Your task to perform on an android device: turn off wifi Image 0: 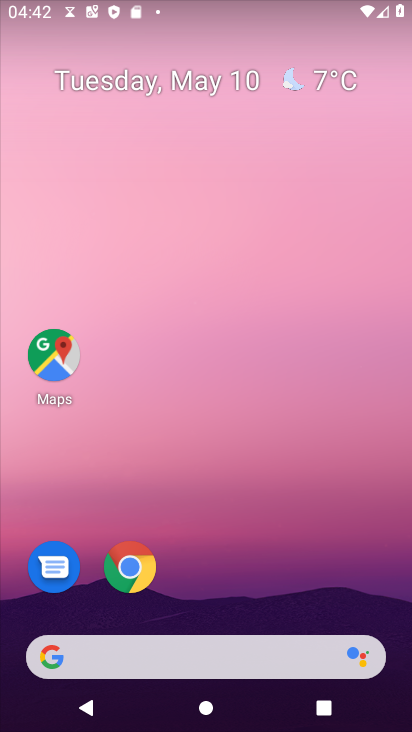
Step 0: drag from (236, 570) to (180, 87)
Your task to perform on an android device: turn off wifi Image 1: 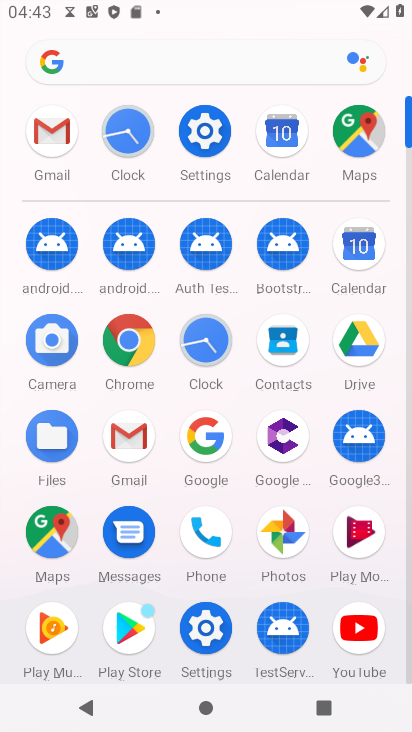
Step 1: click (206, 629)
Your task to perform on an android device: turn off wifi Image 2: 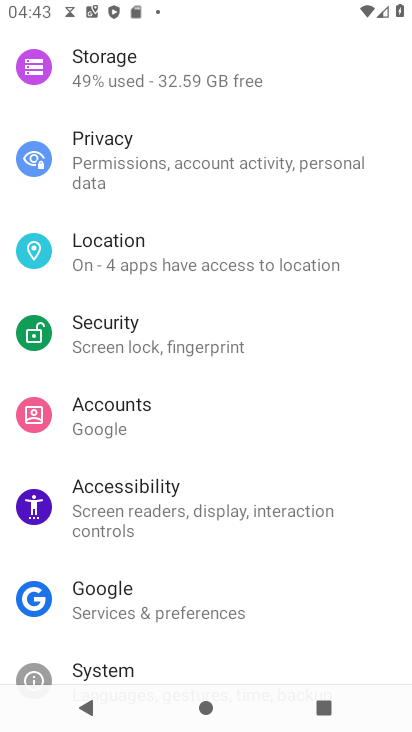
Step 2: drag from (153, 119) to (131, 348)
Your task to perform on an android device: turn off wifi Image 3: 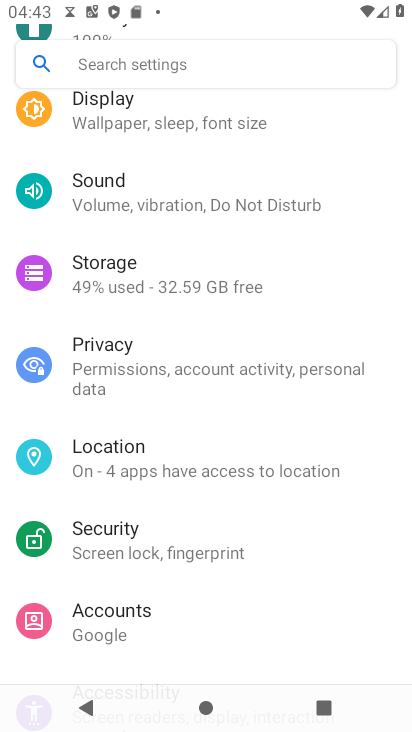
Step 3: drag from (195, 141) to (198, 462)
Your task to perform on an android device: turn off wifi Image 4: 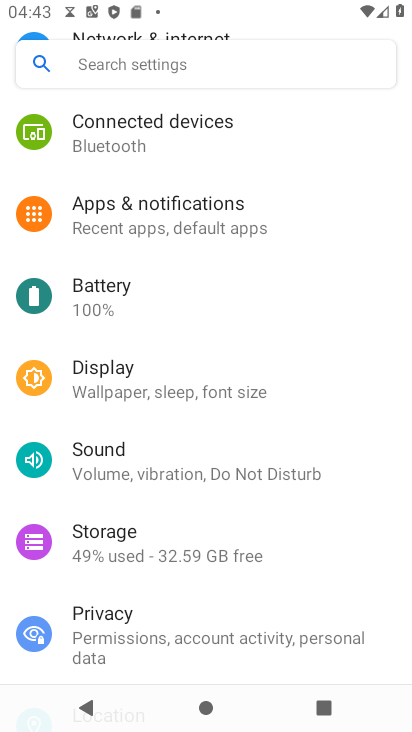
Step 4: drag from (197, 184) to (240, 483)
Your task to perform on an android device: turn off wifi Image 5: 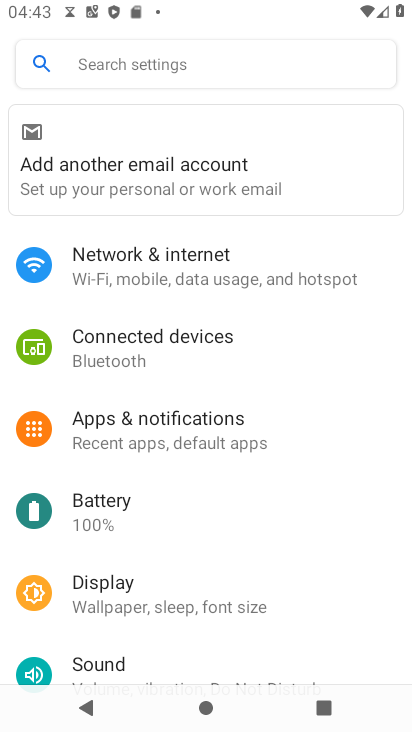
Step 5: click (151, 263)
Your task to perform on an android device: turn off wifi Image 6: 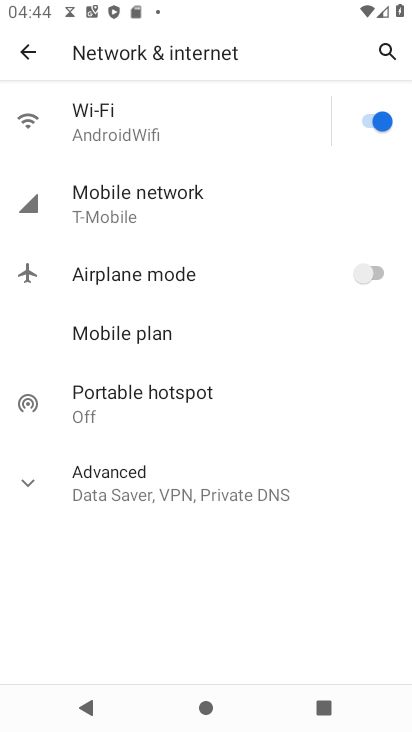
Step 6: click (386, 116)
Your task to perform on an android device: turn off wifi Image 7: 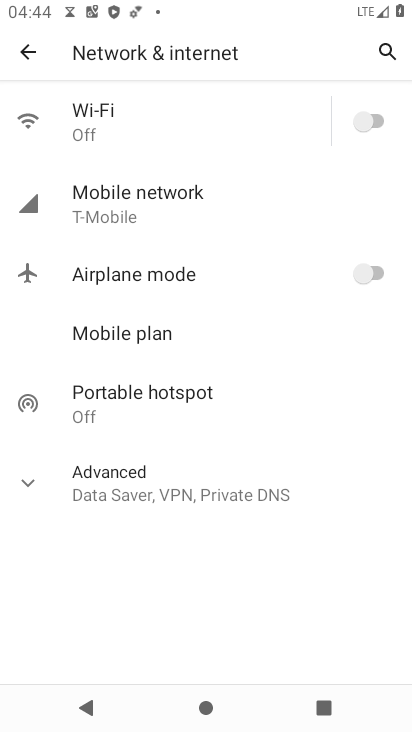
Step 7: task complete